Your task to perform on an android device: Search for Mexican restaurants on Maps Image 0: 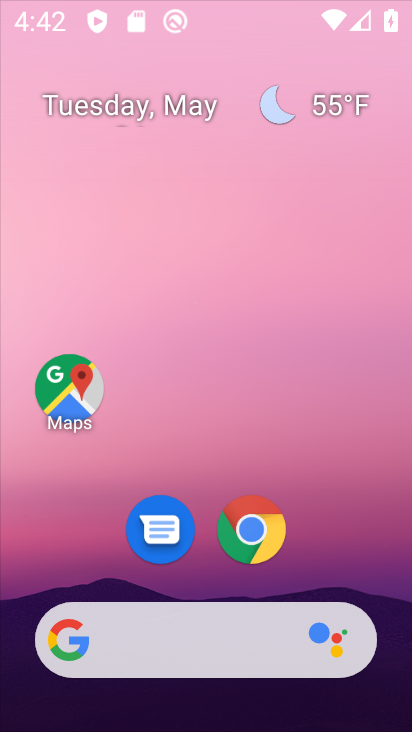
Step 0: drag from (286, 674) to (252, 40)
Your task to perform on an android device: Search for Mexican restaurants on Maps Image 1: 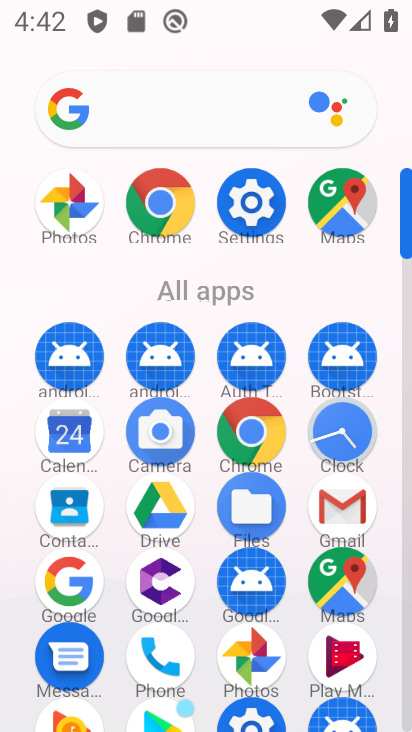
Step 1: click (341, 584)
Your task to perform on an android device: Search for Mexican restaurants on Maps Image 2: 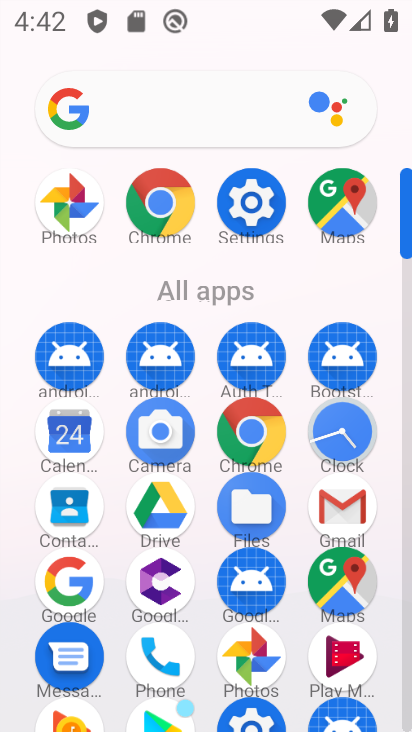
Step 2: click (340, 578)
Your task to perform on an android device: Search for Mexican restaurants on Maps Image 3: 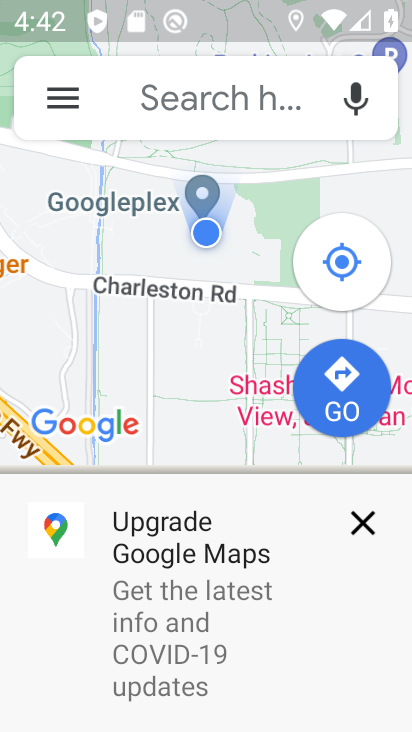
Step 3: click (138, 103)
Your task to perform on an android device: Search for Mexican restaurants on Maps Image 4: 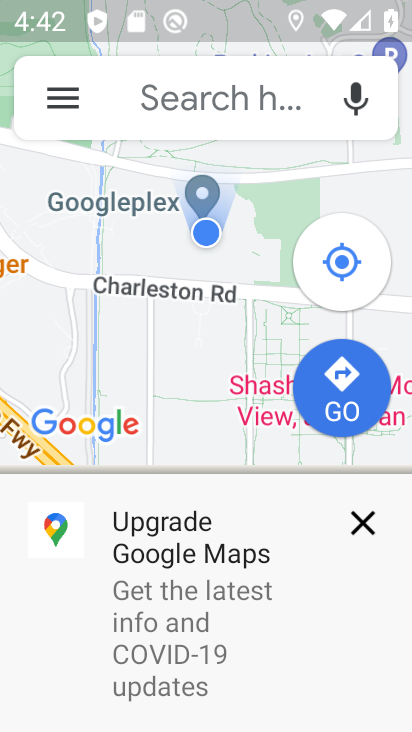
Step 4: click (150, 101)
Your task to perform on an android device: Search for Mexican restaurants on Maps Image 5: 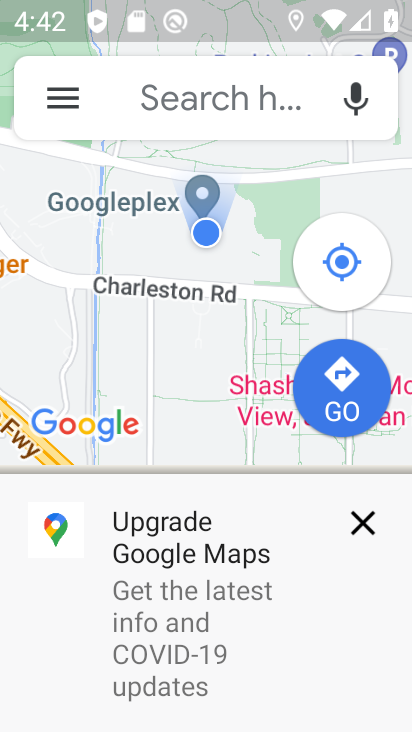
Step 5: click (150, 101)
Your task to perform on an android device: Search for Mexican restaurants on Maps Image 6: 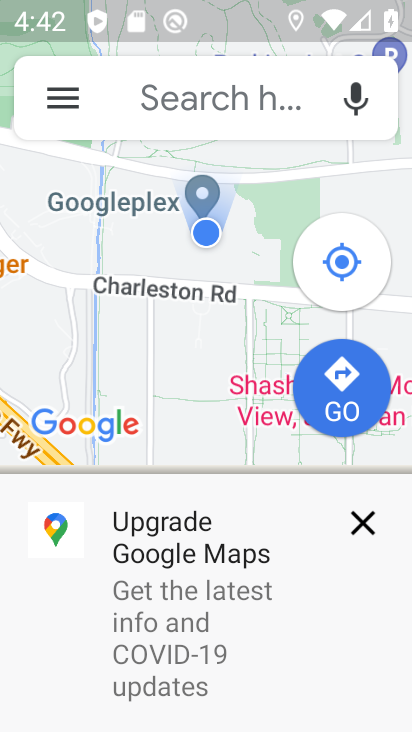
Step 6: click (149, 104)
Your task to perform on an android device: Search for Mexican restaurants on Maps Image 7: 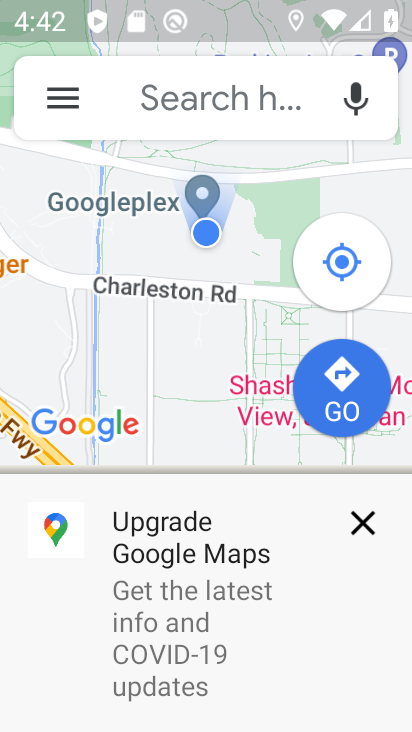
Step 7: click (146, 111)
Your task to perform on an android device: Search for Mexican restaurants on Maps Image 8: 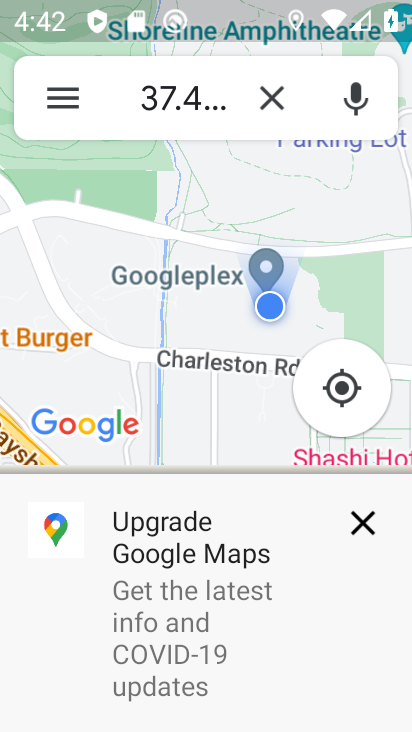
Step 8: click (146, 111)
Your task to perform on an android device: Search for Mexican restaurants on Maps Image 9: 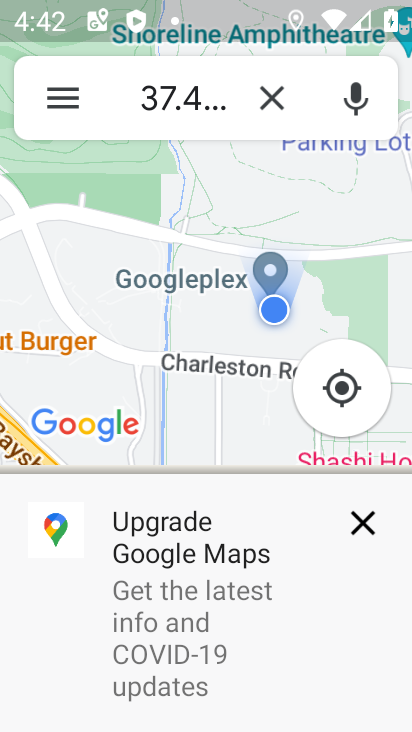
Step 9: click (283, 94)
Your task to perform on an android device: Search for Mexican restaurants on Maps Image 10: 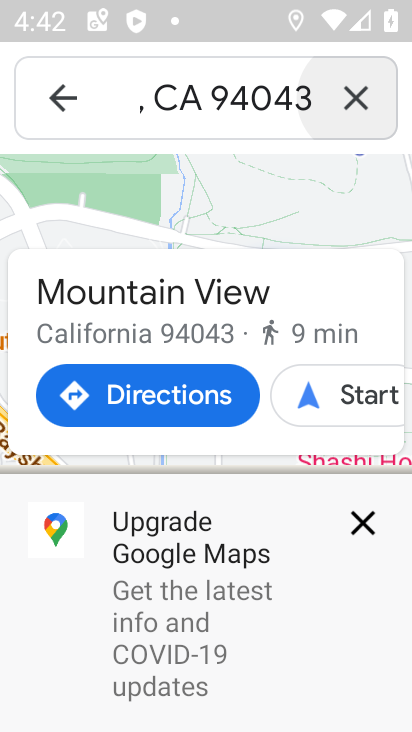
Step 10: click (271, 91)
Your task to perform on an android device: Search for Mexican restaurants on Maps Image 11: 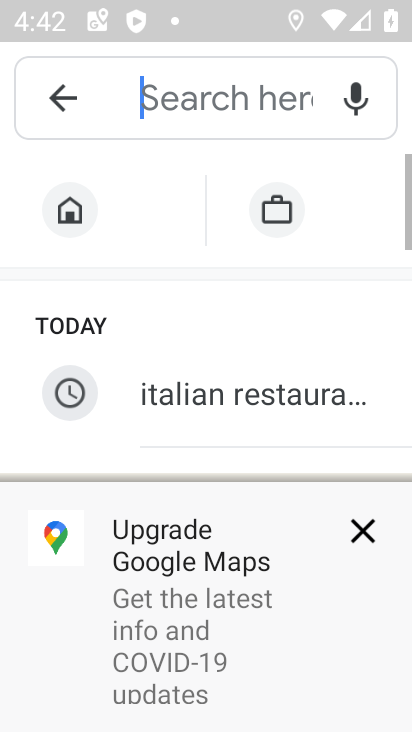
Step 11: click (270, 98)
Your task to perform on an android device: Search for Mexican restaurants on Maps Image 12: 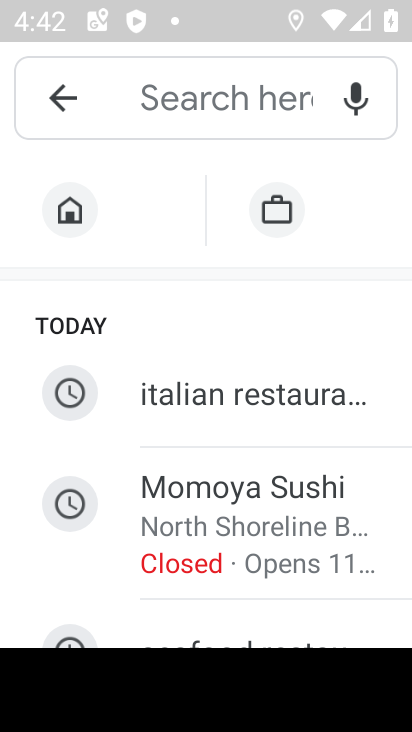
Step 12: type "mexican restaurants"
Your task to perform on an android device: Search for Mexican restaurants on Maps Image 13: 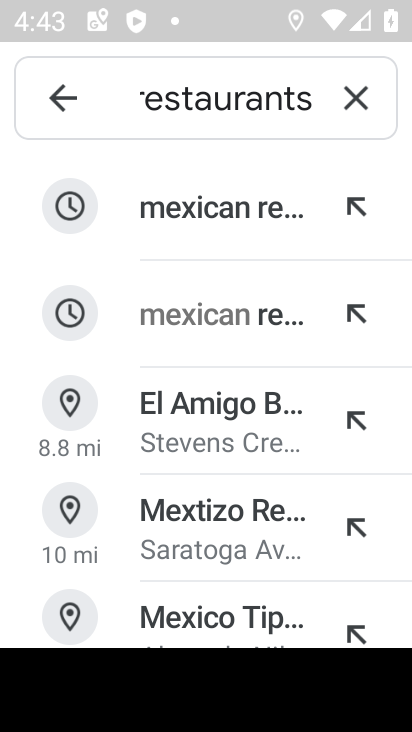
Step 13: task complete